Your task to perform on an android device: clear history in the chrome app Image 0: 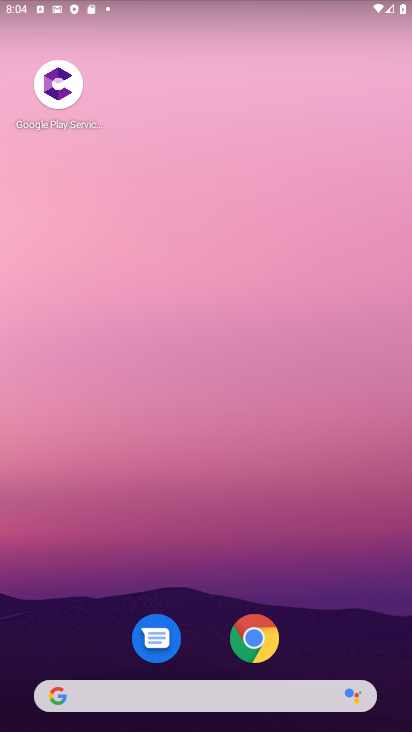
Step 0: click (253, 622)
Your task to perform on an android device: clear history in the chrome app Image 1: 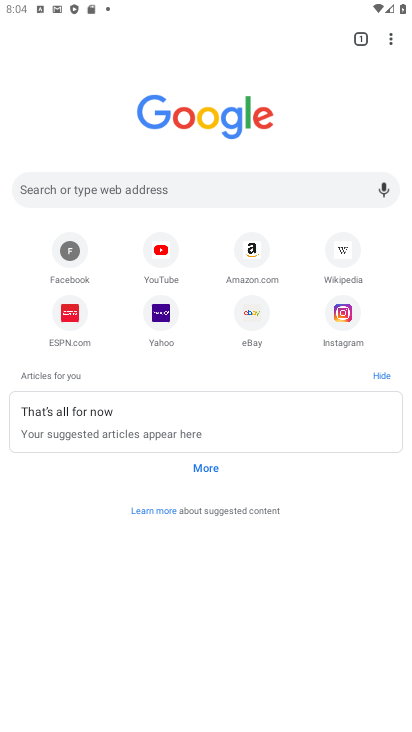
Step 1: click (393, 30)
Your task to perform on an android device: clear history in the chrome app Image 2: 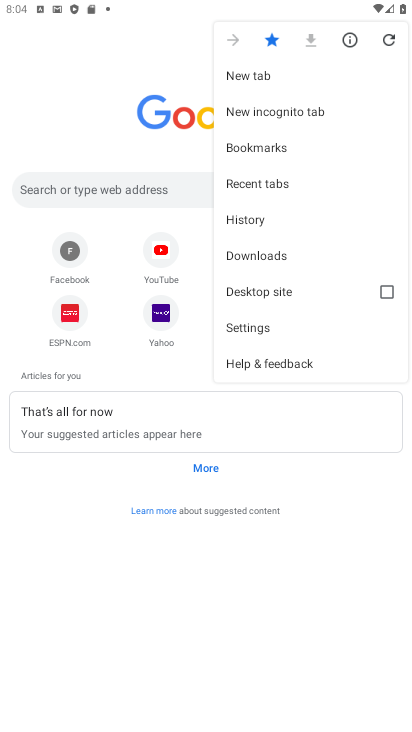
Step 2: click (259, 226)
Your task to perform on an android device: clear history in the chrome app Image 3: 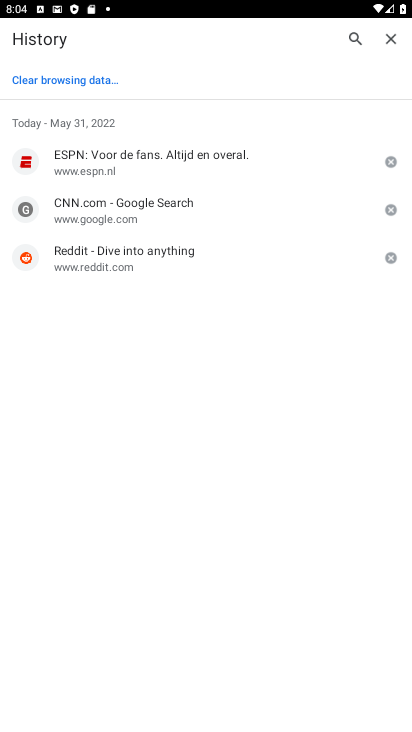
Step 3: click (84, 83)
Your task to perform on an android device: clear history in the chrome app Image 4: 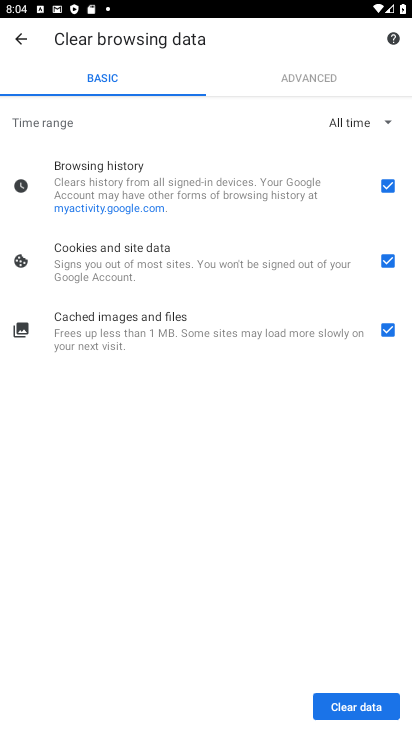
Step 4: click (380, 703)
Your task to perform on an android device: clear history in the chrome app Image 5: 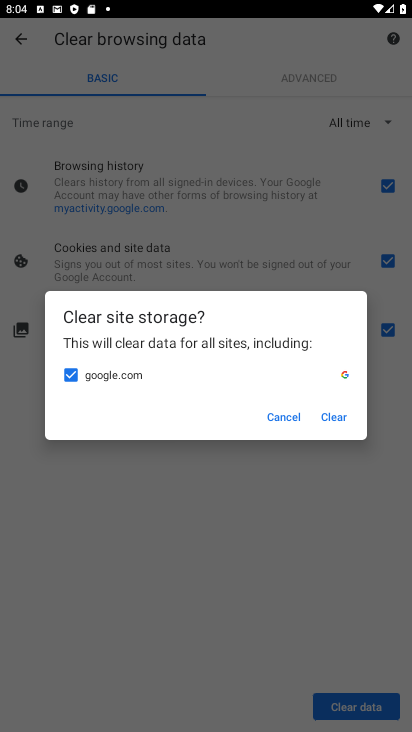
Step 5: click (328, 415)
Your task to perform on an android device: clear history in the chrome app Image 6: 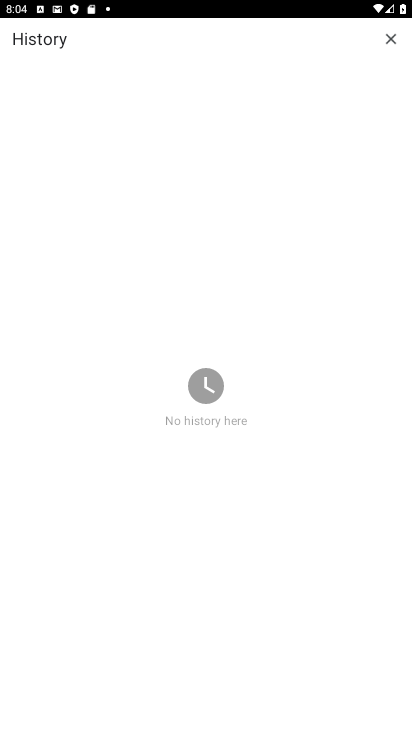
Step 6: task complete